Your task to perform on an android device: open app "The Home Depot" Image 0: 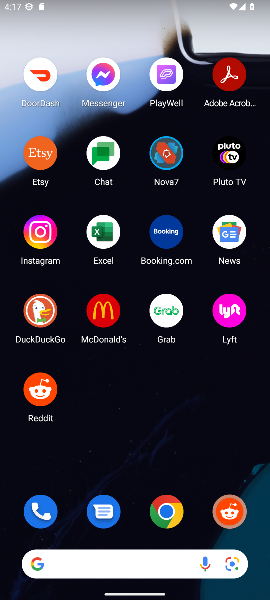
Step 0: click (137, 428)
Your task to perform on an android device: open app "The Home Depot" Image 1: 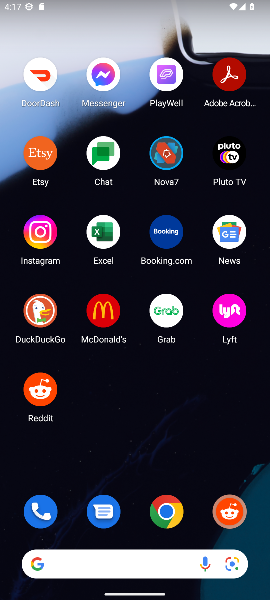
Step 1: drag from (147, 459) to (194, 232)
Your task to perform on an android device: open app "The Home Depot" Image 2: 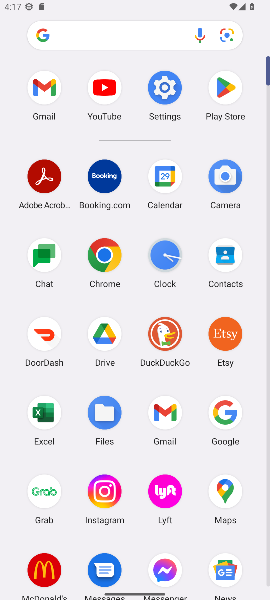
Step 2: click (224, 103)
Your task to perform on an android device: open app "The Home Depot" Image 3: 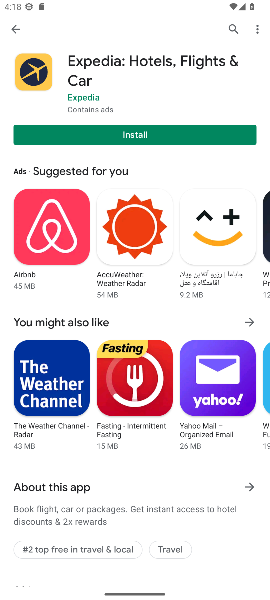
Step 3: click (13, 30)
Your task to perform on an android device: open app "The Home Depot" Image 4: 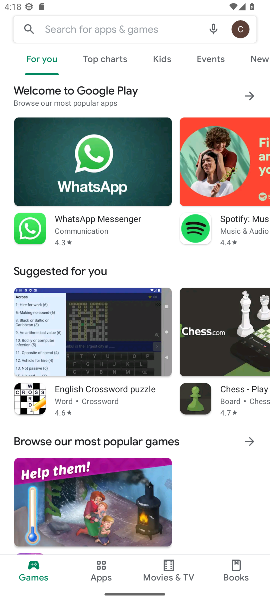
Step 4: click (57, 27)
Your task to perform on an android device: open app "The Home Depot" Image 5: 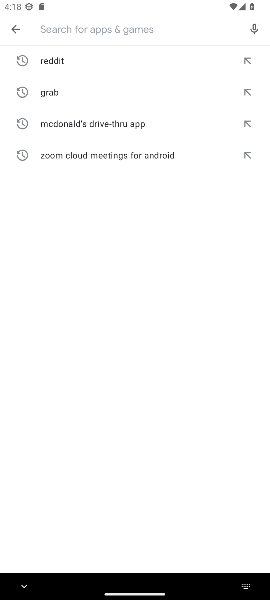
Step 5: type "The Home Depot"
Your task to perform on an android device: open app "The Home Depot" Image 6: 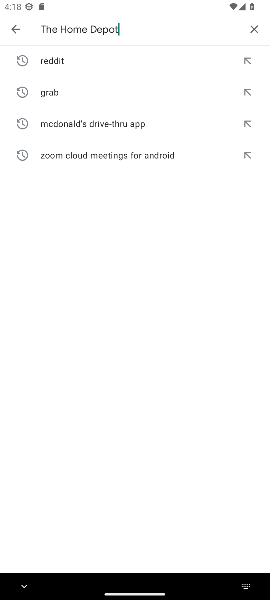
Step 6: type ""
Your task to perform on an android device: open app "The Home Depot" Image 7: 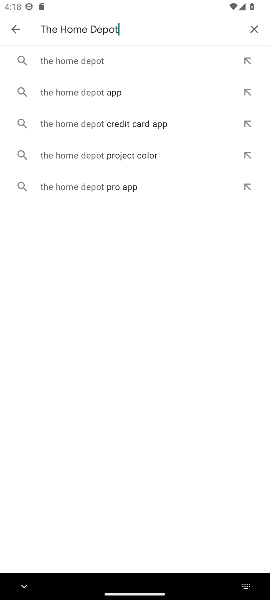
Step 7: click (69, 57)
Your task to perform on an android device: open app "The Home Depot" Image 8: 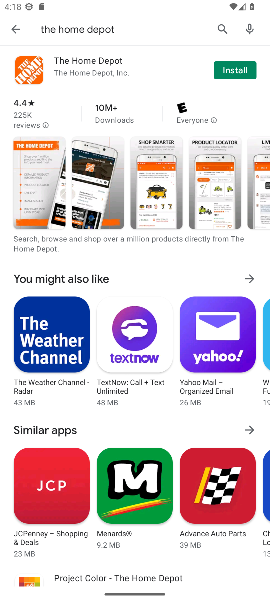
Step 8: task complete